Your task to perform on an android device: toggle translation in the chrome app Image 0: 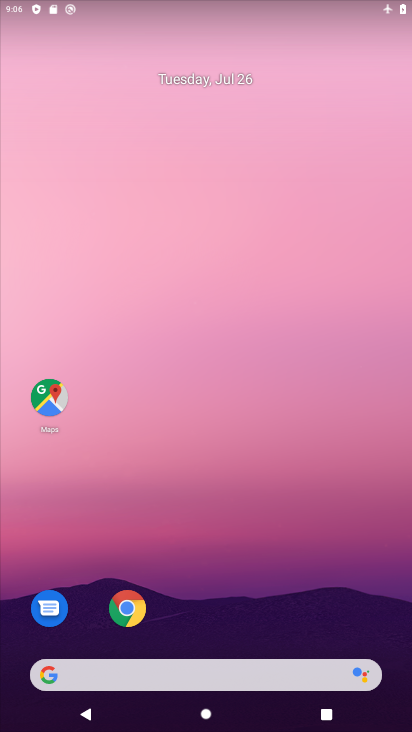
Step 0: click (136, 619)
Your task to perform on an android device: toggle translation in the chrome app Image 1: 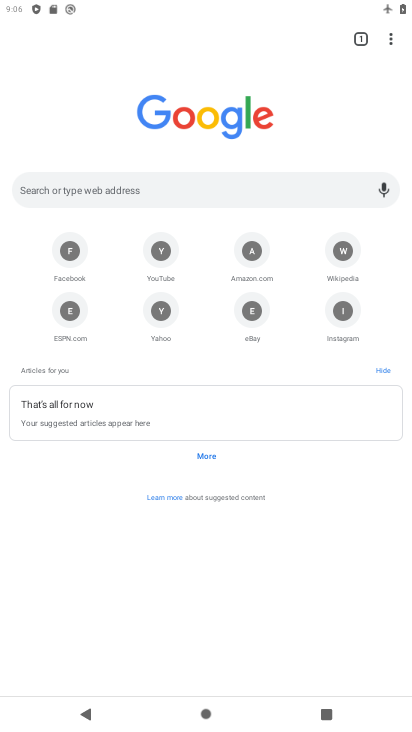
Step 1: click (398, 41)
Your task to perform on an android device: toggle translation in the chrome app Image 2: 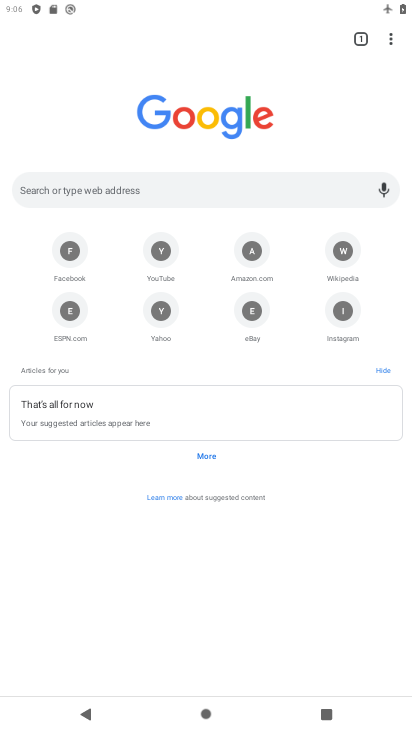
Step 2: drag from (391, 39) to (253, 330)
Your task to perform on an android device: toggle translation in the chrome app Image 3: 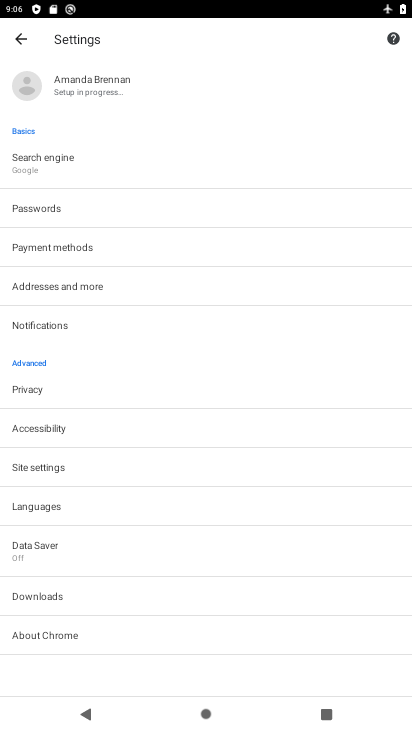
Step 3: click (91, 505)
Your task to perform on an android device: toggle translation in the chrome app Image 4: 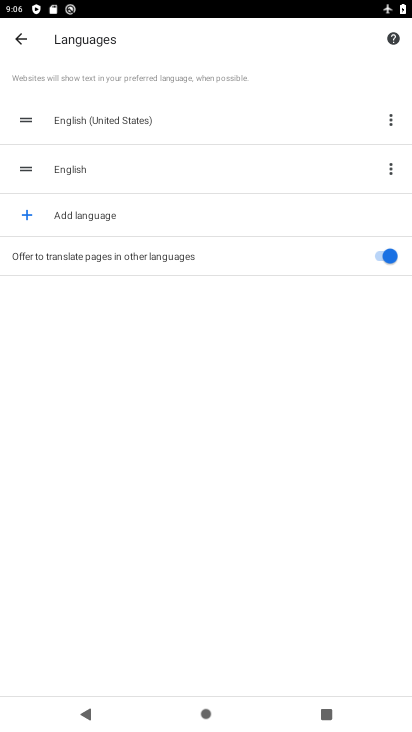
Step 4: click (374, 252)
Your task to perform on an android device: toggle translation in the chrome app Image 5: 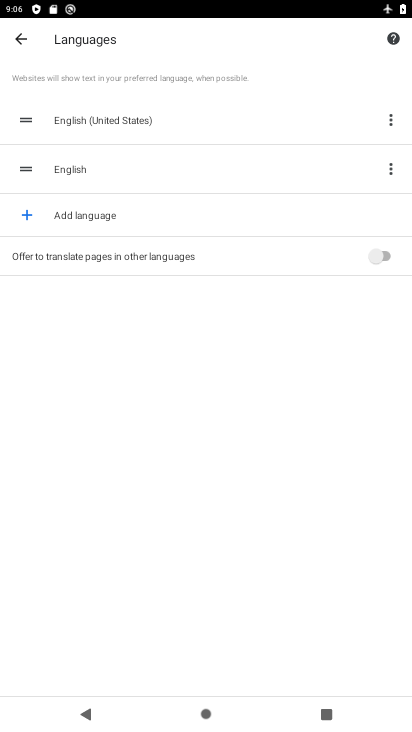
Step 5: task complete